Your task to perform on an android device: open chrome and create a bookmark for the current page Image 0: 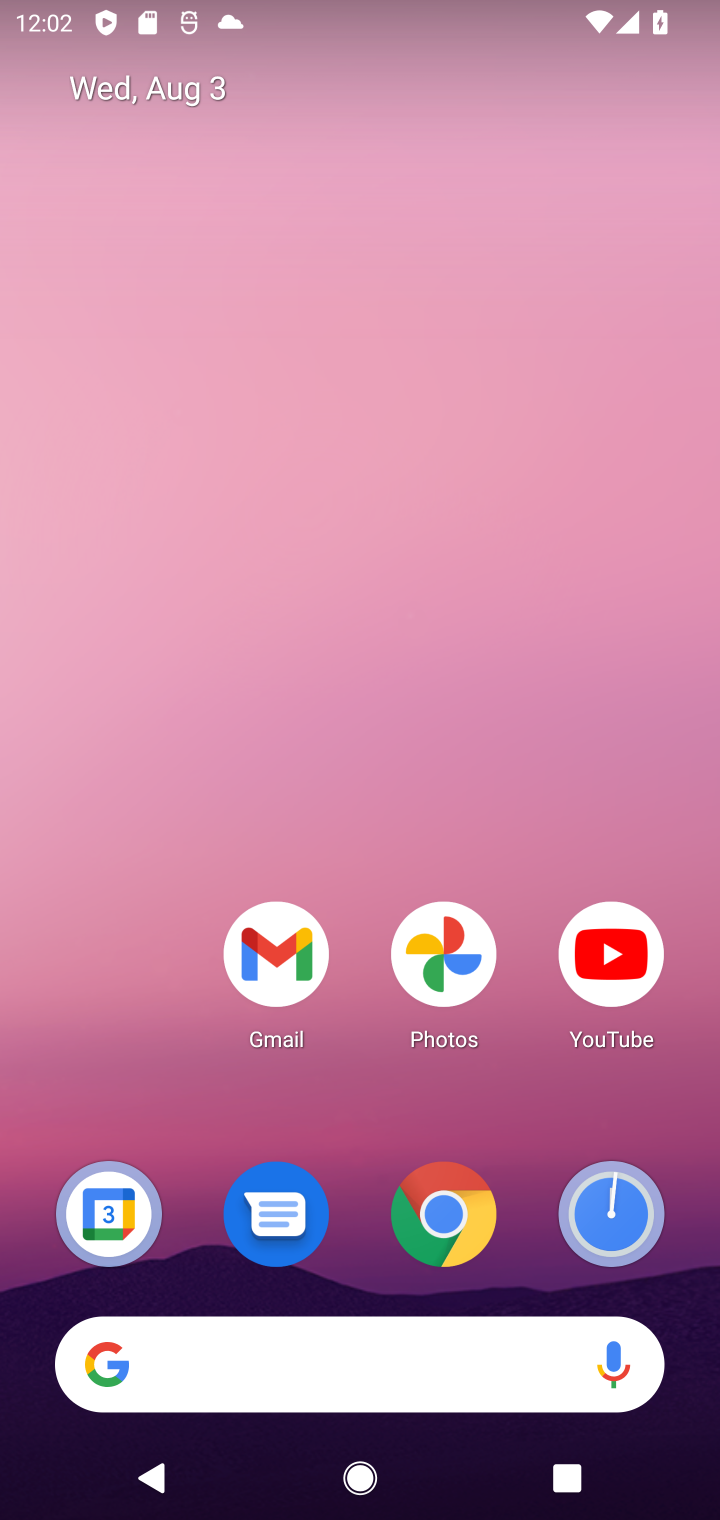
Step 0: click (455, 1229)
Your task to perform on an android device: open chrome and create a bookmark for the current page Image 1: 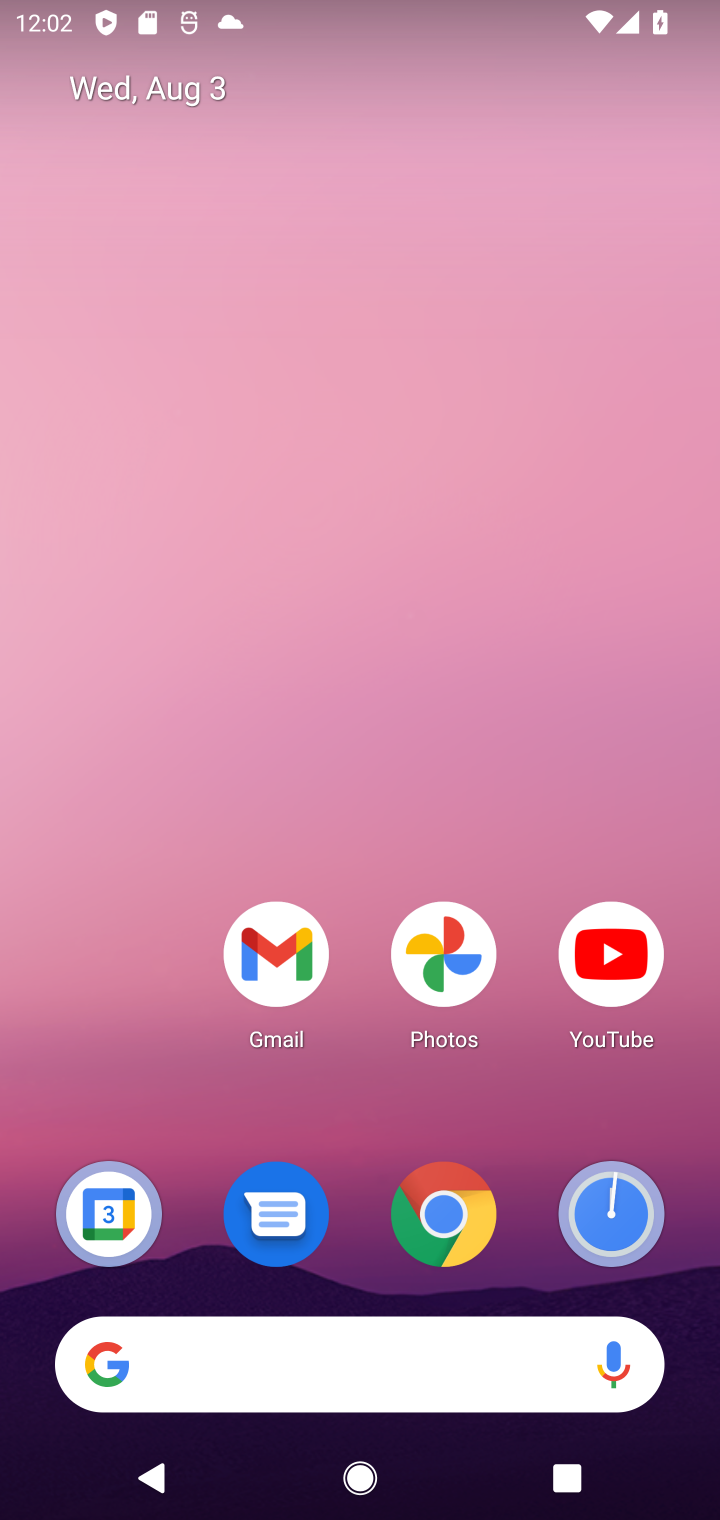
Step 1: click (455, 1229)
Your task to perform on an android device: open chrome and create a bookmark for the current page Image 2: 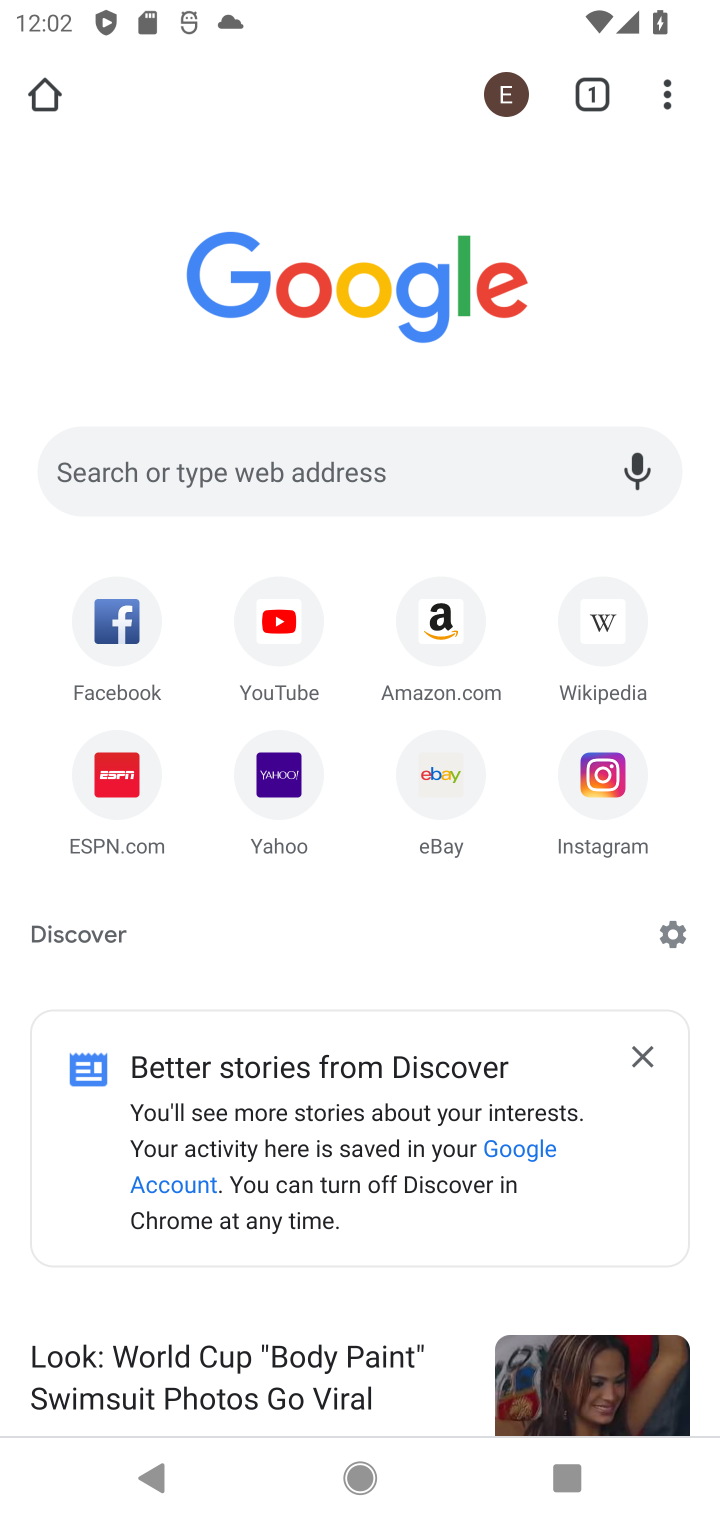
Step 2: click (667, 94)
Your task to perform on an android device: open chrome and create a bookmark for the current page Image 3: 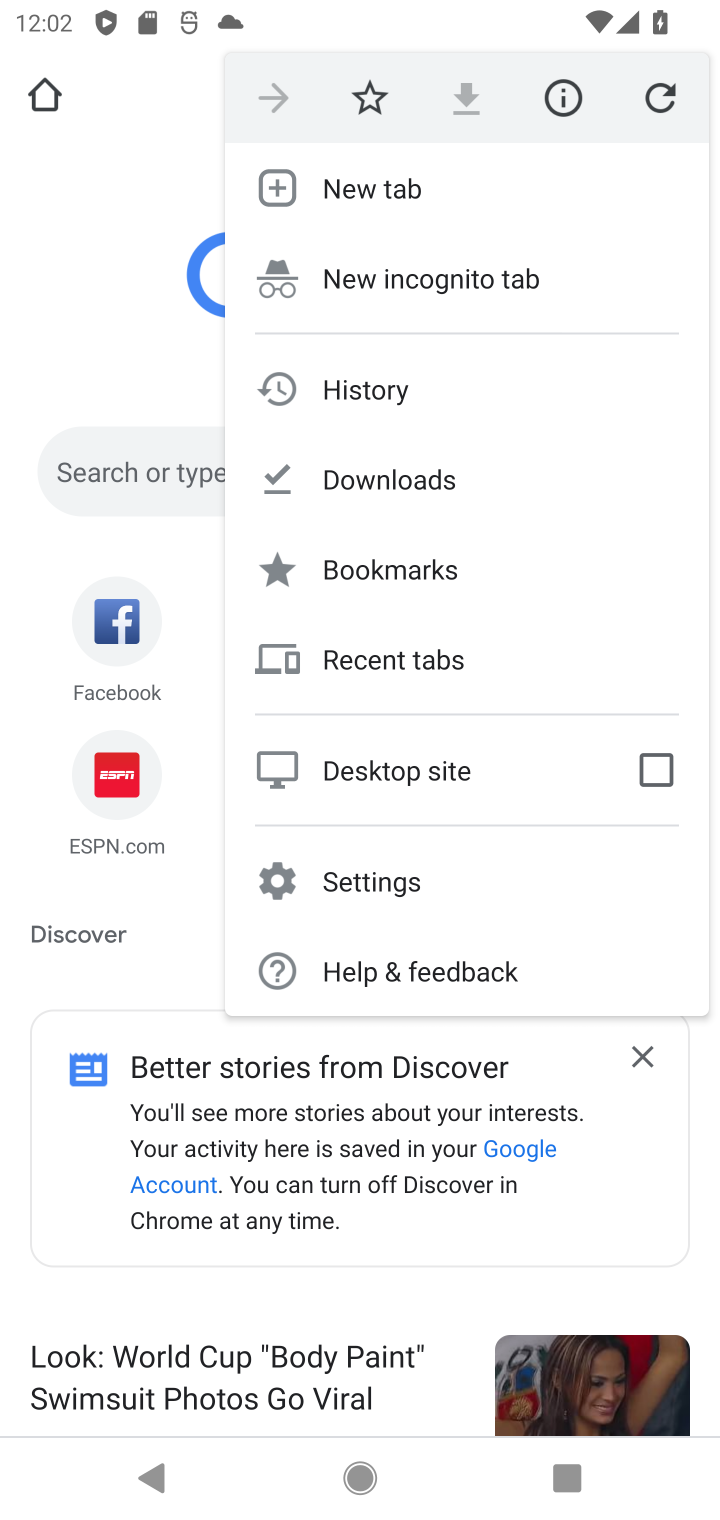
Step 3: click (374, 98)
Your task to perform on an android device: open chrome and create a bookmark for the current page Image 4: 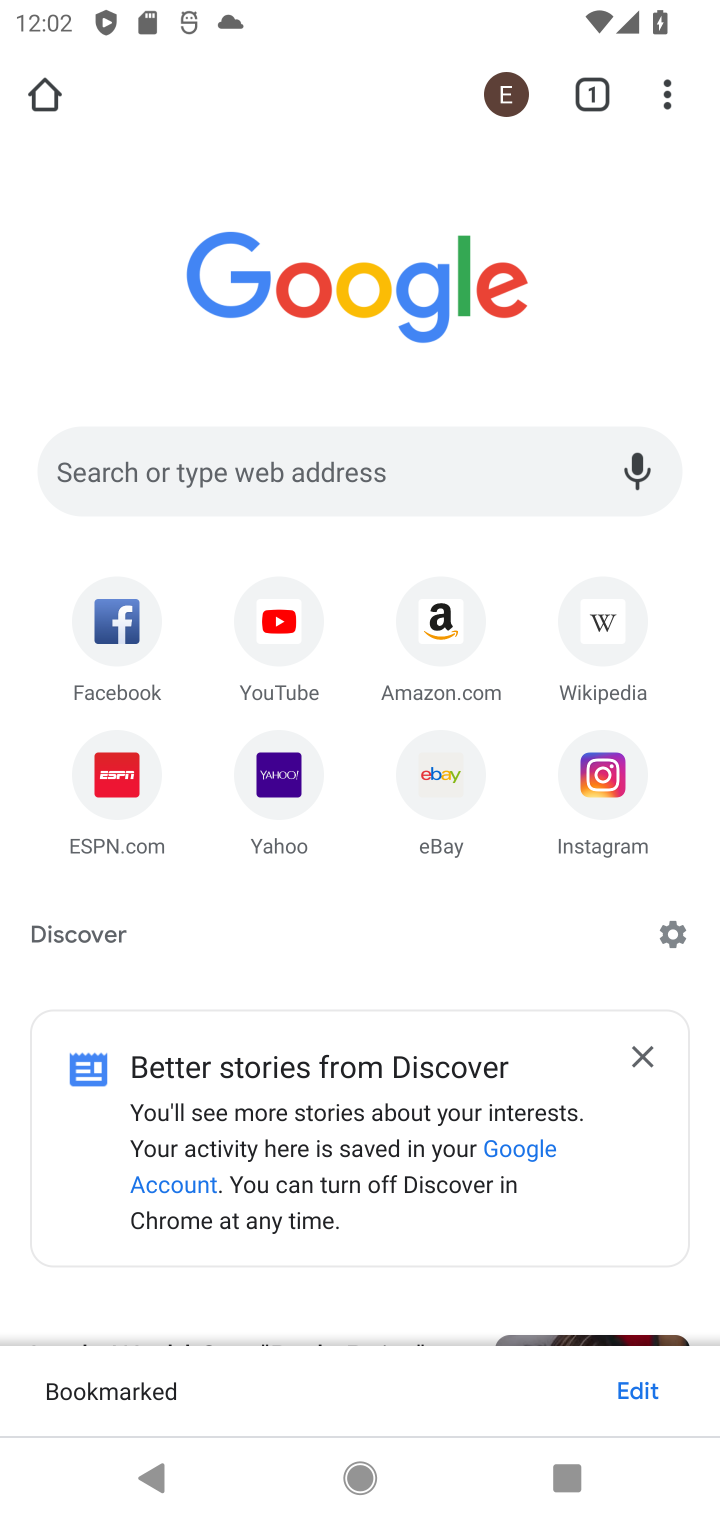
Step 4: task complete